Your task to perform on an android device: Open accessibility settings Image 0: 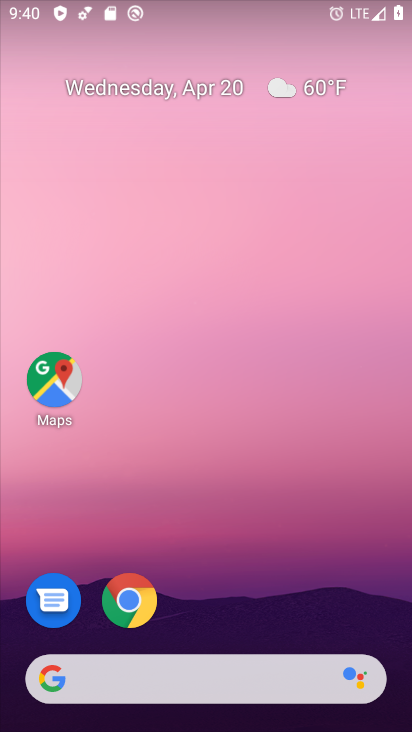
Step 0: drag from (217, 649) to (243, 52)
Your task to perform on an android device: Open accessibility settings Image 1: 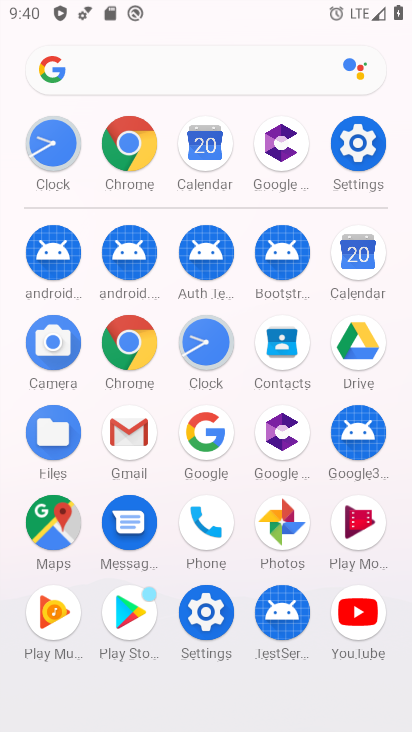
Step 1: click (369, 157)
Your task to perform on an android device: Open accessibility settings Image 2: 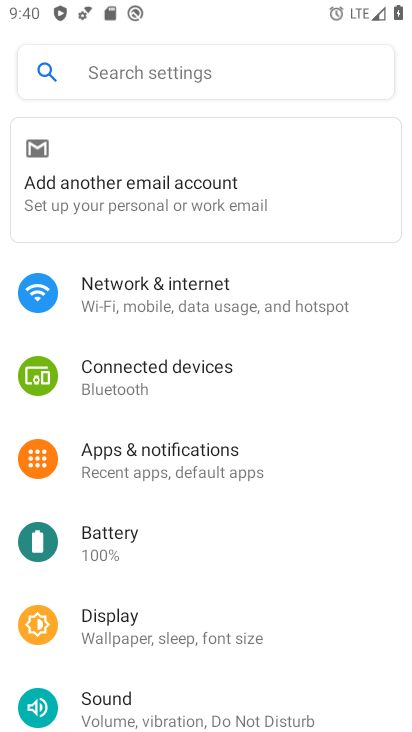
Step 2: drag from (258, 581) to (277, 196)
Your task to perform on an android device: Open accessibility settings Image 3: 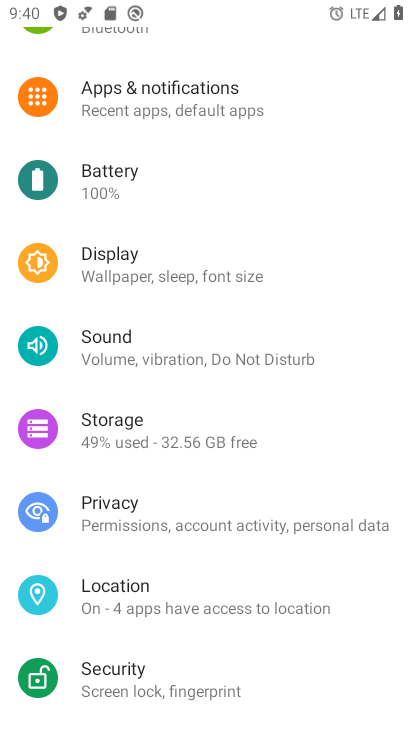
Step 3: drag from (255, 599) to (271, 131)
Your task to perform on an android device: Open accessibility settings Image 4: 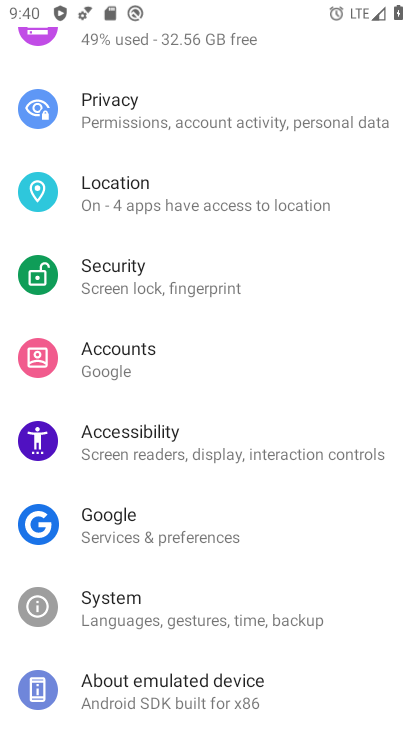
Step 4: click (134, 444)
Your task to perform on an android device: Open accessibility settings Image 5: 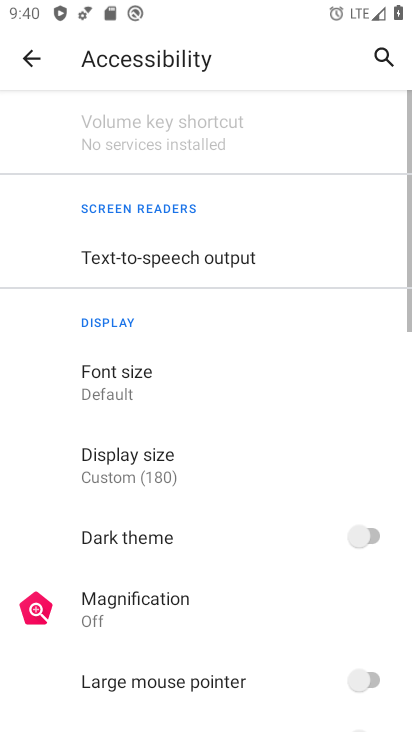
Step 5: task complete